Your task to perform on an android device: toggle show notifications on the lock screen Image 0: 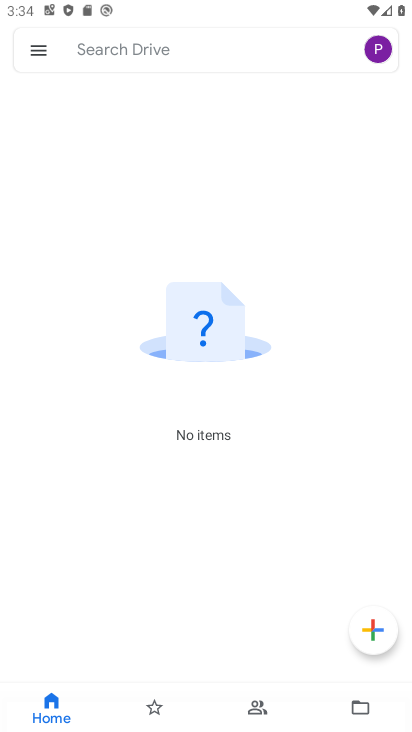
Step 0: press home button
Your task to perform on an android device: toggle show notifications on the lock screen Image 1: 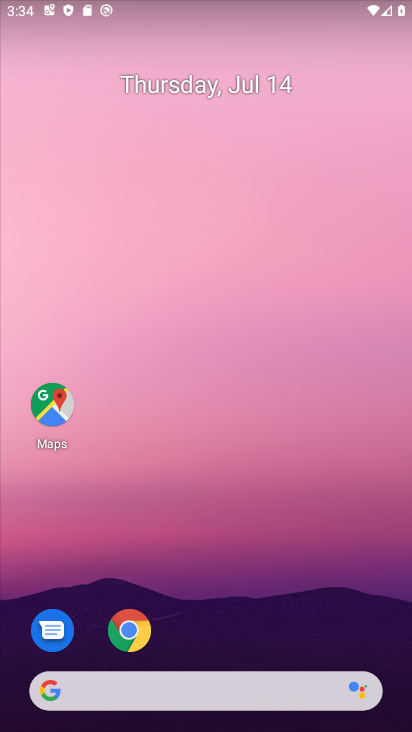
Step 1: drag from (219, 704) to (223, 116)
Your task to perform on an android device: toggle show notifications on the lock screen Image 2: 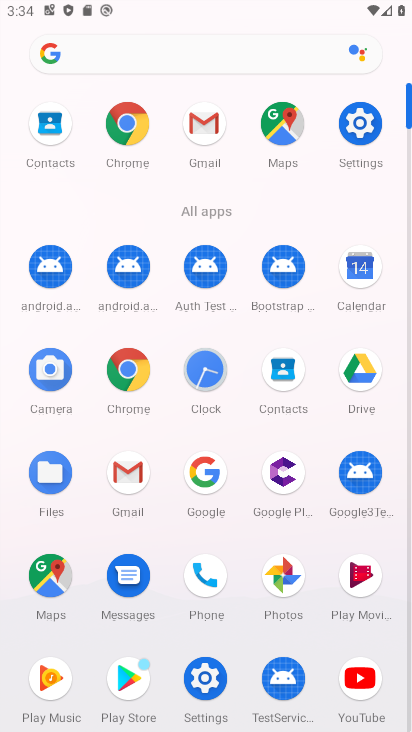
Step 2: click (358, 119)
Your task to perform on an android device: toggle show notifications on the lock screen Image 3: 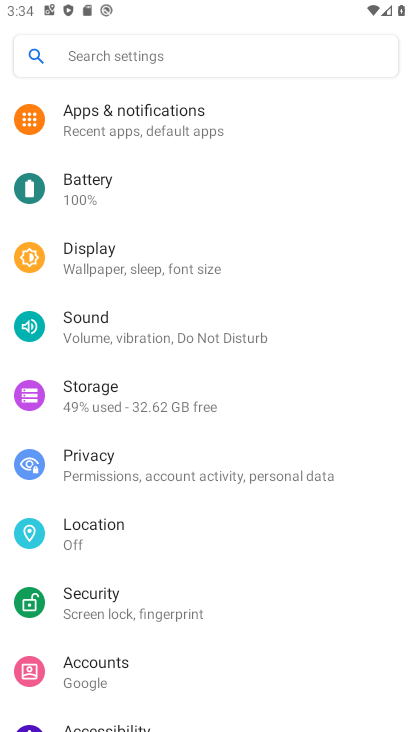
Step 3: click (154, 122)
Your task to perform on an android device: toggle show notifications on the lock screen Image 4: 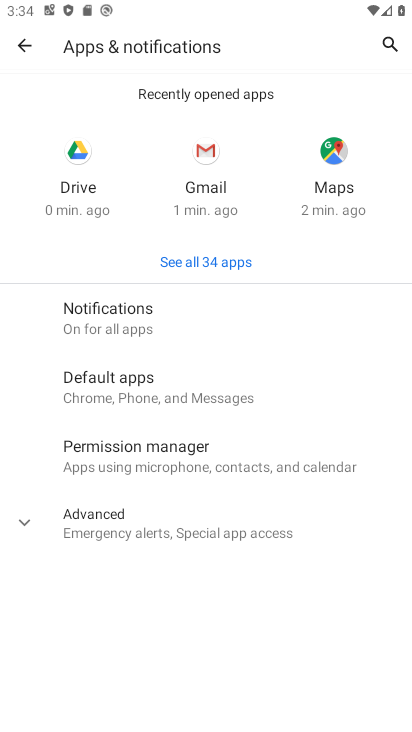
Step 4: click (105, 307)
Your task to perform on an android device: toggle show notifications on the lock screen Image 5: 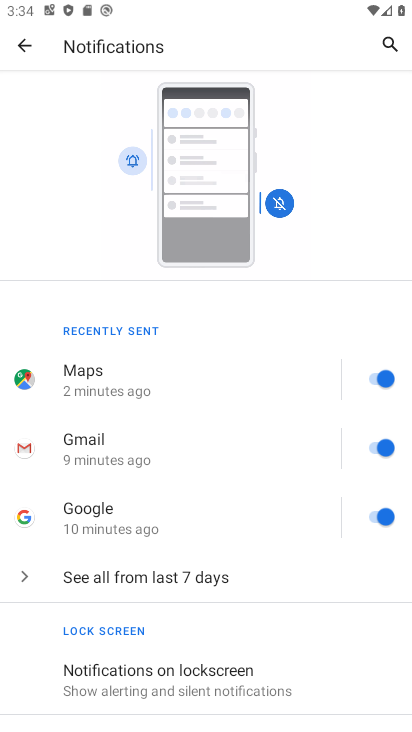
Step 5: click (155, 683)
Your task to perform on an android device: toggle show notifications on the lock screen Image 6: 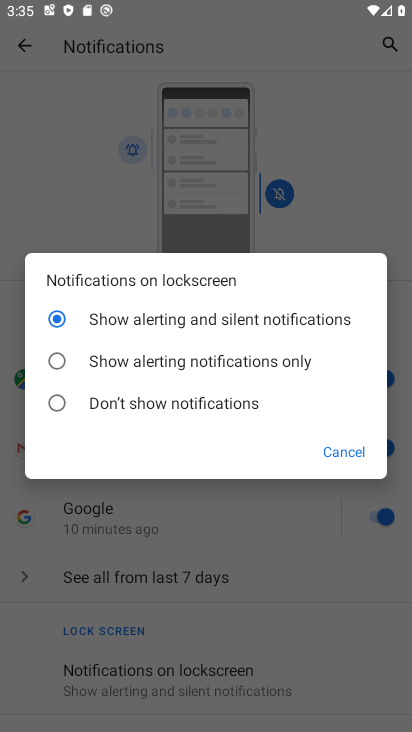
Step 6: click (54, 363)
Your task to perform on an android device: toggle show notifications on the lock screen Image 7: 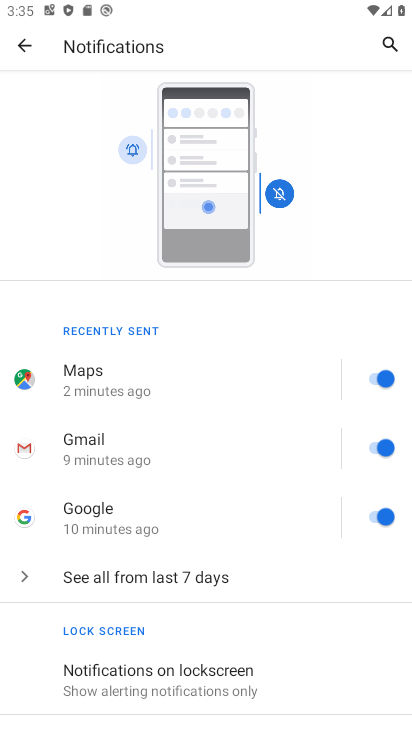
Step 7: task complete